Your task to perform on an android device: Is it going to rain today? Image 0: 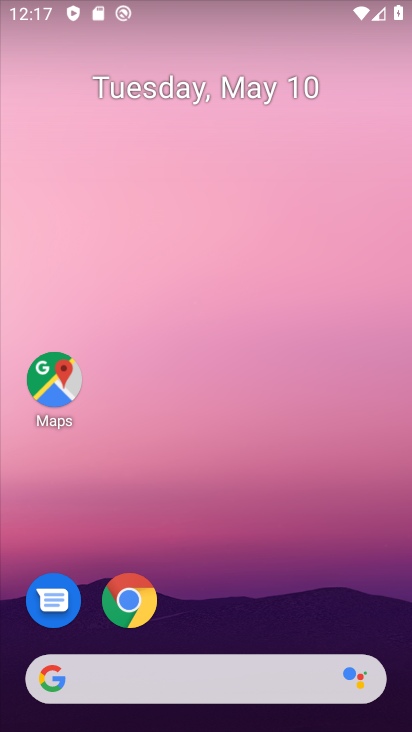
Step 0: drag from (3, 292) to (399, 324)
Your task to perform on an android device: Is it going to rain today? Image 1: 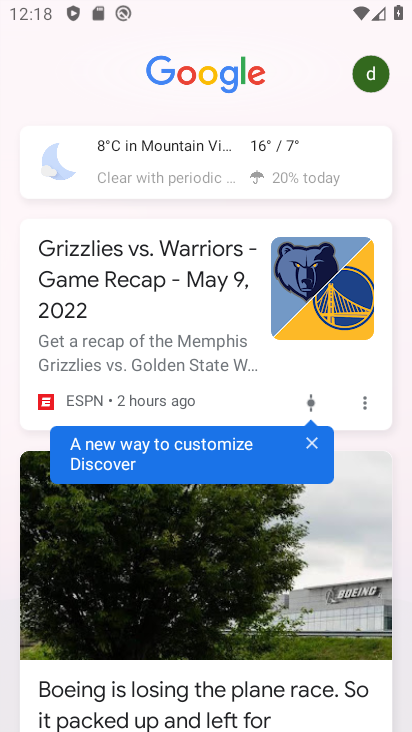
Step 1: click (297, 178)
Your task to perform on an android device: Is it going to rain today? Image 2: 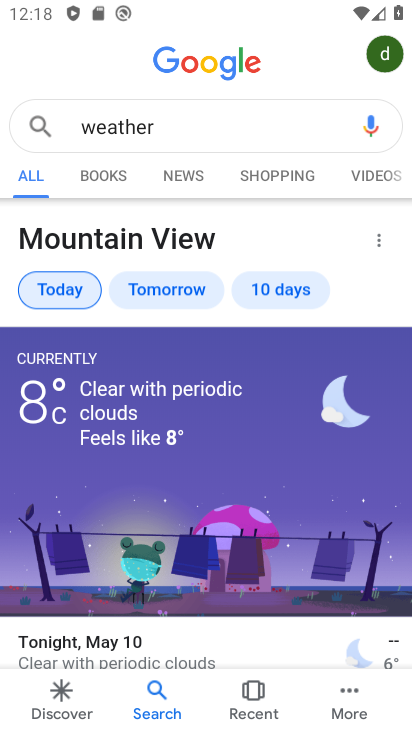
Step 2: task complete